Your task to perform on an android device: Open the phone app and click the voicemail tab. Image 0: 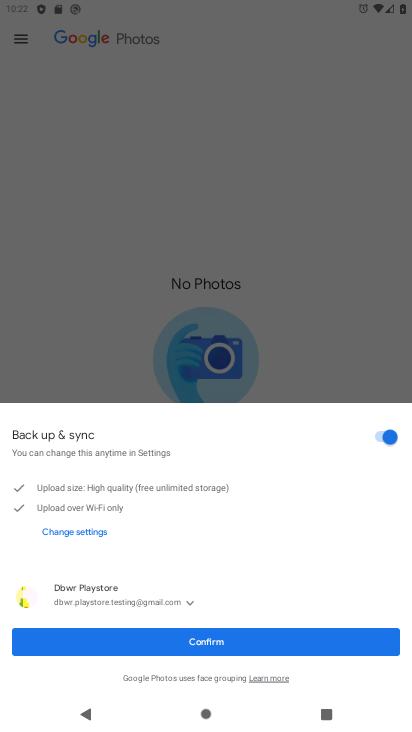
Step 0: press home button
Your task to perform on an android device: Open the phone app and click the voicemail tab. Image 1: 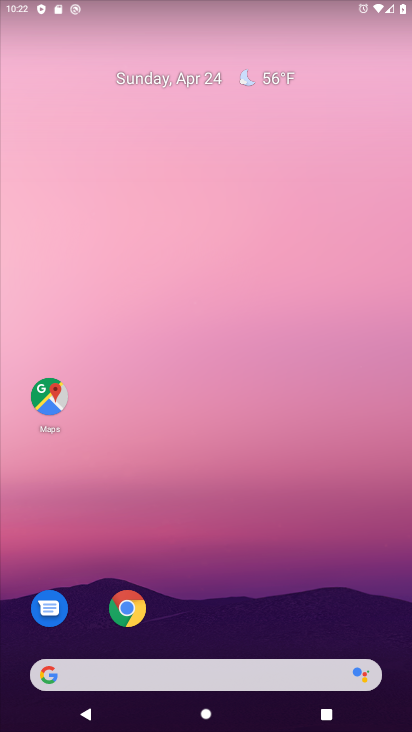
Step 1: drag from (209, 660) to (202, 22)
Your task to perform on an android device: Open the phone app and click the voicemail tab. Image 2: 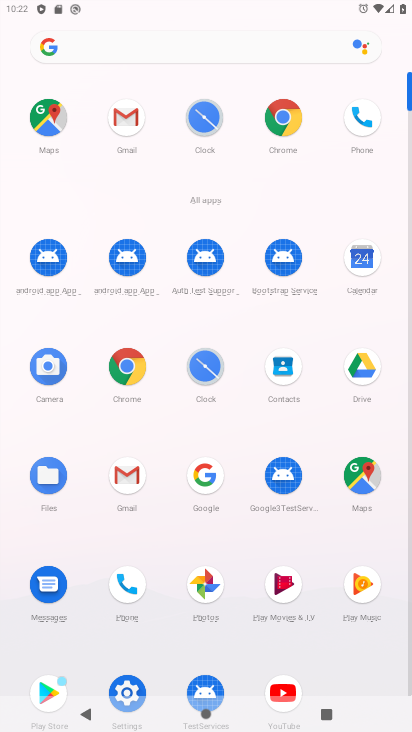
Step 2: click (129, 587)
Your task to perform on an android device: Open the phone app and click the voicemail tab. Image 3: 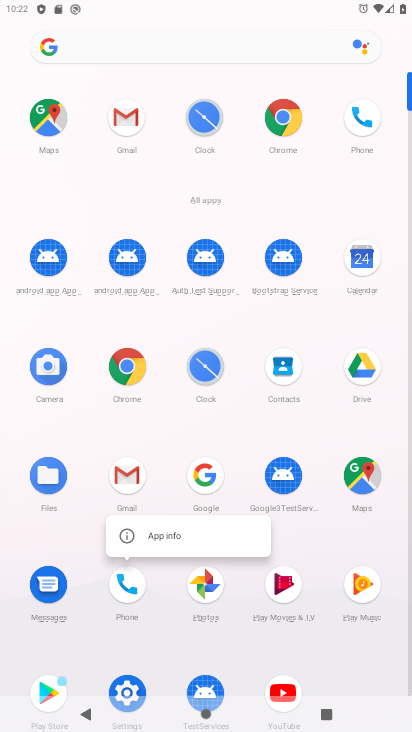
Step 3: click (124, 576)
Your task to perform on an android device: Open the phone app and click the voicemail tab. Image 4: 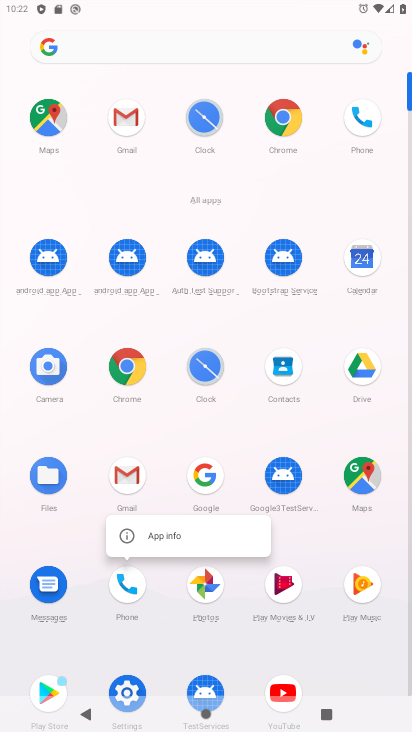
Step 4: click (124, 579)
Your task to perform on an android device: Open the phone app and click the voicemail tab. Image 5: 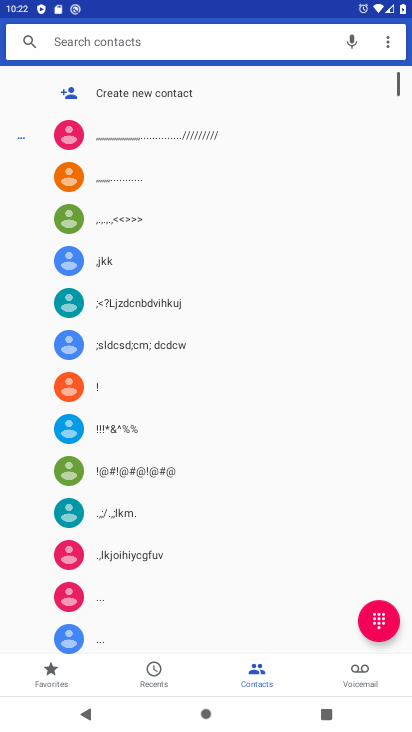
Step 5: click (359, 670)
Your task to perform on an android device: Open the phone app and click the voicemail tab. Image 6: 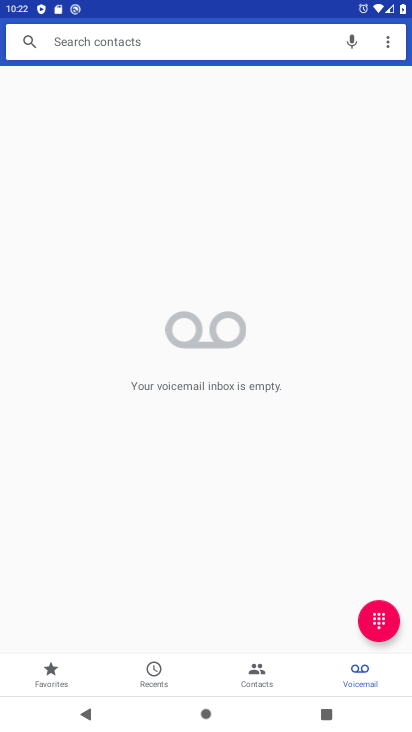
Step 6: task complete